Your task to perform on an android device: Open Google Chrome and click the shortcut for Amazon.com Image 0: 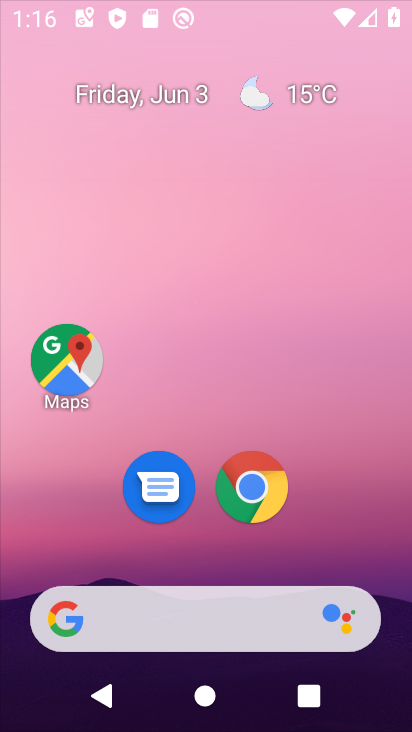
Step 0: press home button
Your task to perform on an android device: Open Google Chrome and click the shortcut for Amazon.com Image 1: 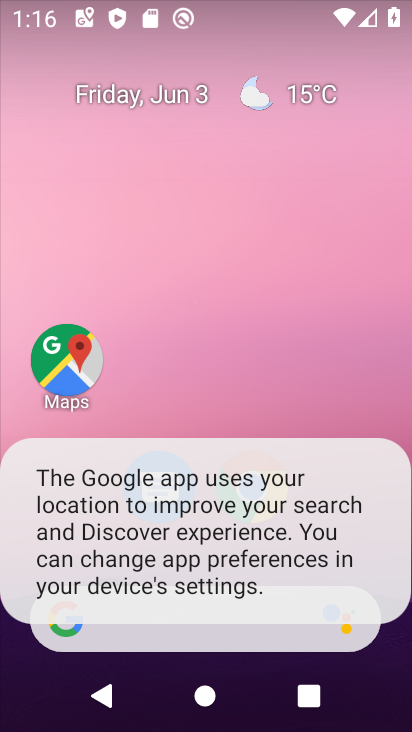
Step 1: click (264, 323)
Your task to perform on an android device: Open Google Chrome and click the shortcut for Amazon.com Image 2: 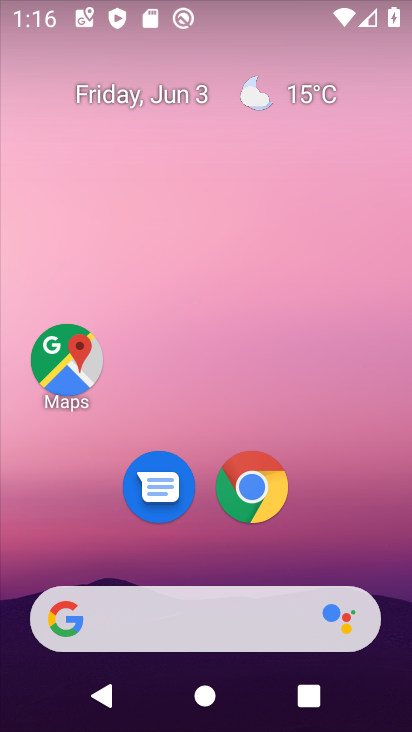
Step 2: click (245, 481)
Your task to perform on an android device: Open Google Chrome and click the shortcut for Amazon.com Image 3: 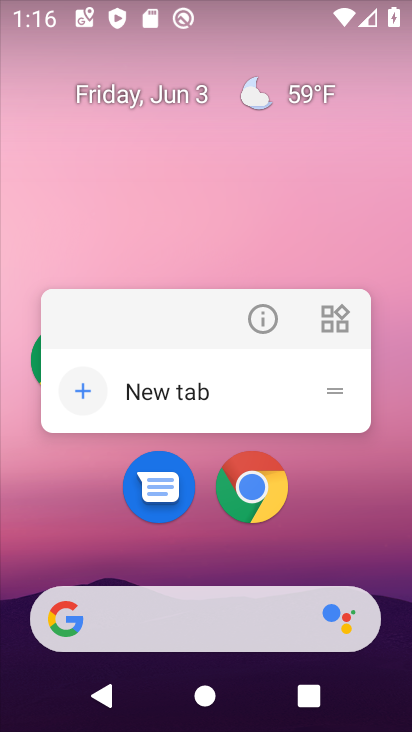
Step 3: click (254, 484)
Your task to perform on an android device: Open Google Chrome and click the shortcut for Amazon.com Image 4: 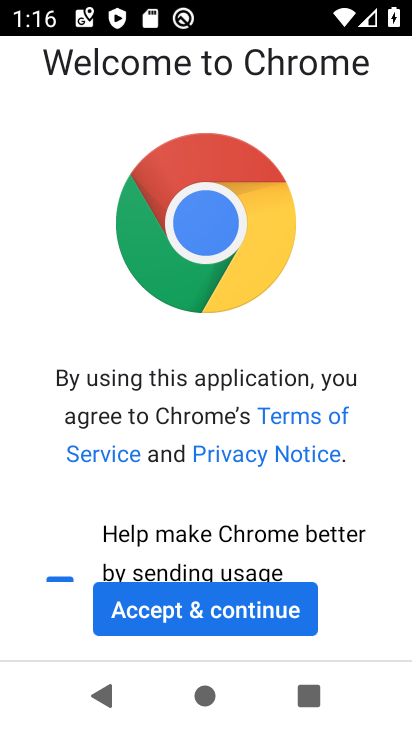
Step 4: click (200, 610)
Your task to perform on an android device: Open Google Chrome and click the shortcut for Amazon.com Image 5: 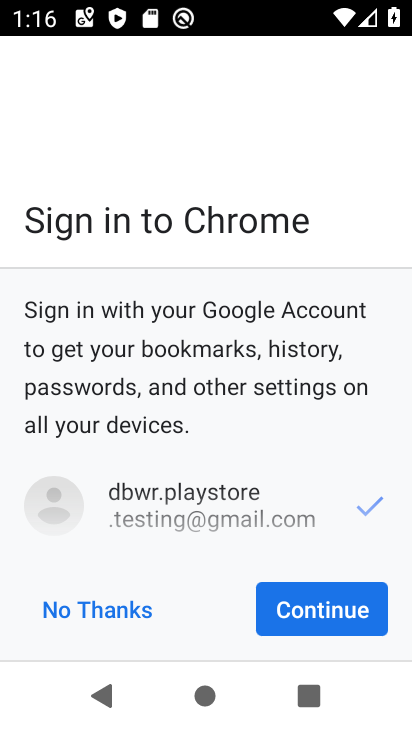
Step 5: click (325, 605)
Your task to perform on an android device: Open Google Chrome and click the shortcut for Amazon.com Image 6: 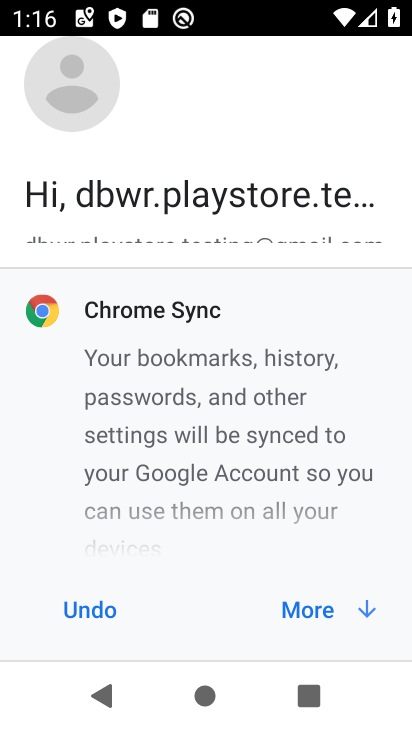
Step 6: click (325, 604)
Your task to perform on an android device: Open Google Chrome and click the shortcut for Amazon.com Image 7: 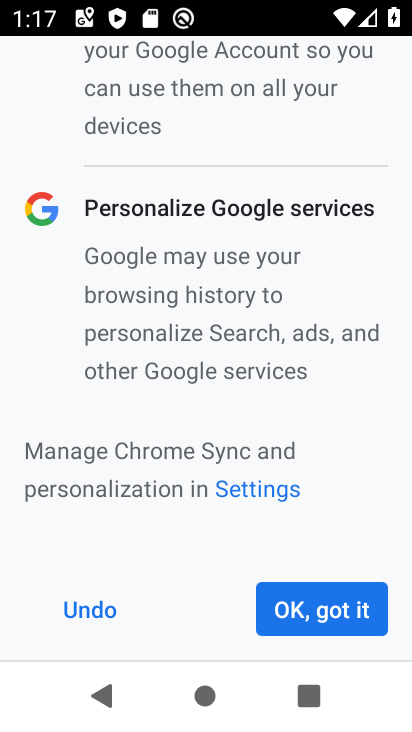
Step 7: click (311, 608)
Your task to perform on an android device: Open Google Chrome and click the shortcut for Amazon.com Image 8: 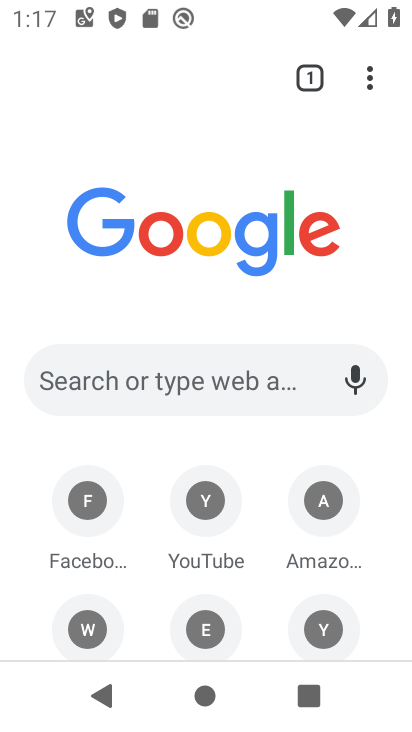
Step 8: click (323, 491)
Your task to perform on an android device: Open Google Chrome and click the shortcut for Amazon.com Image 9: 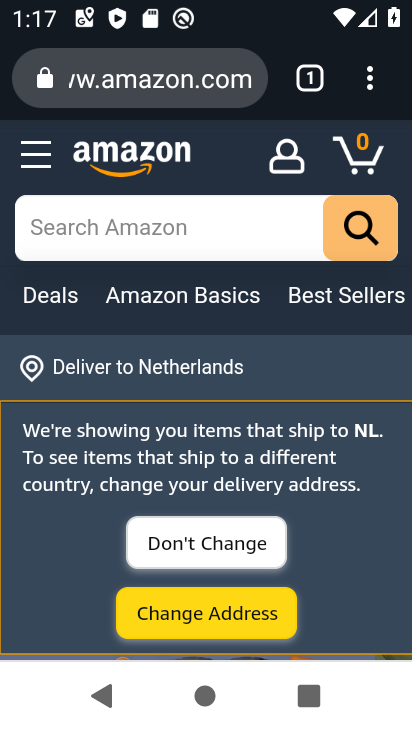
Step 9: task complete